Your task to perform on an android device: Open Amazon Image 0: 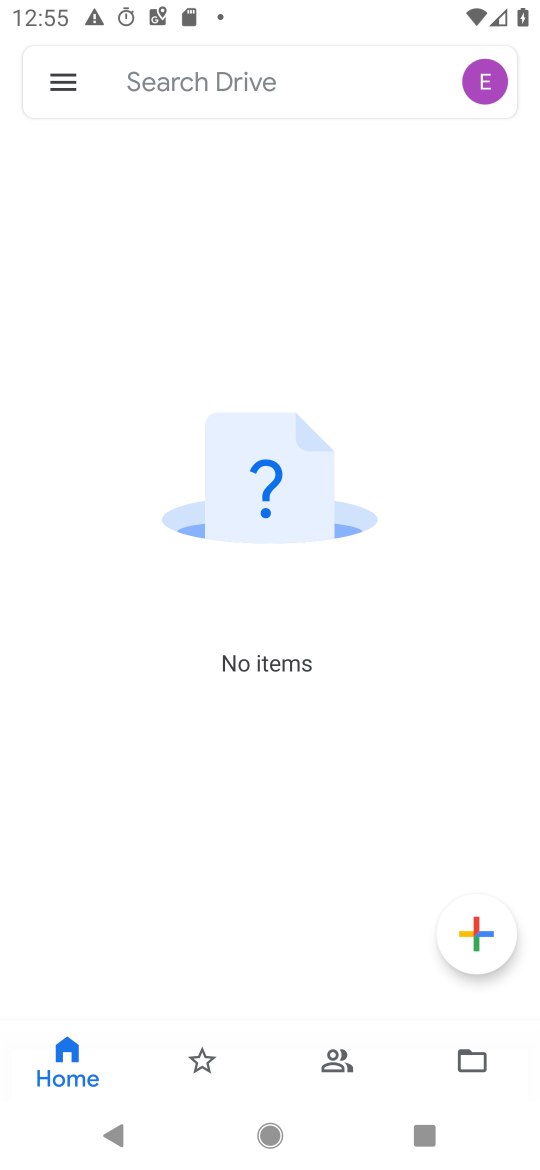
Step 0: press home button
Your task to perform on an android device: Open Amazon Image 1: 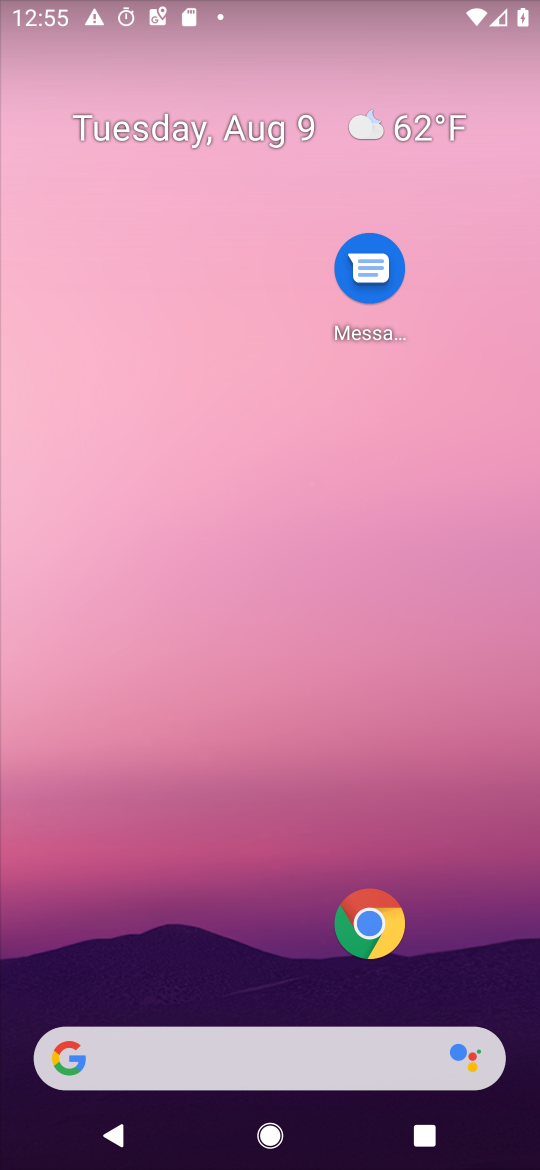
Step 1: click (135, 1058)
Your task to perform on an android device: Open Amazon Image 2: 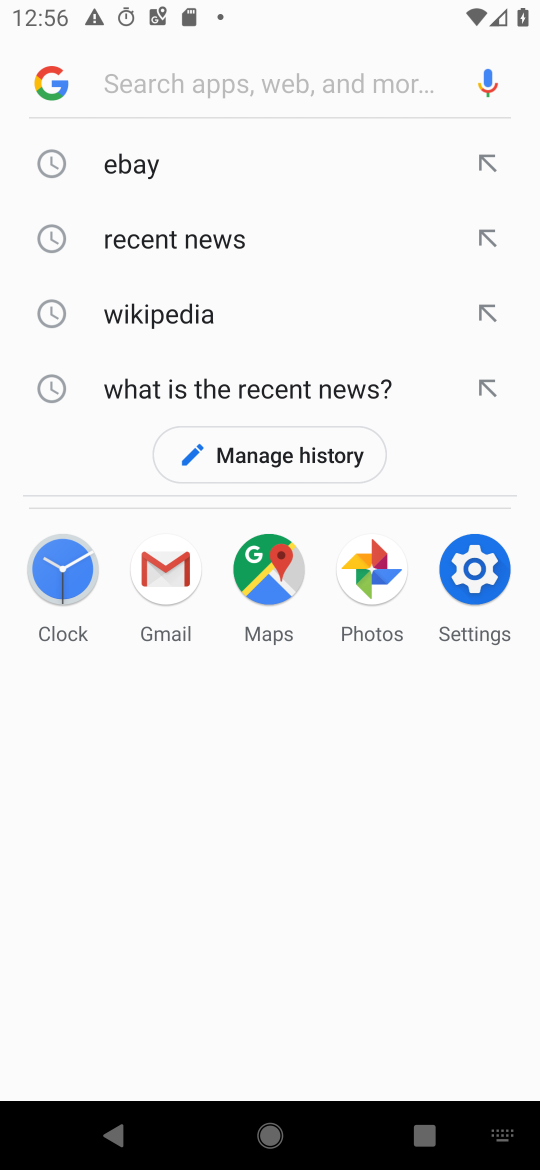
Step 2: type "Amazon"
Your task to perform on an android device: Open Amazon Image 3: 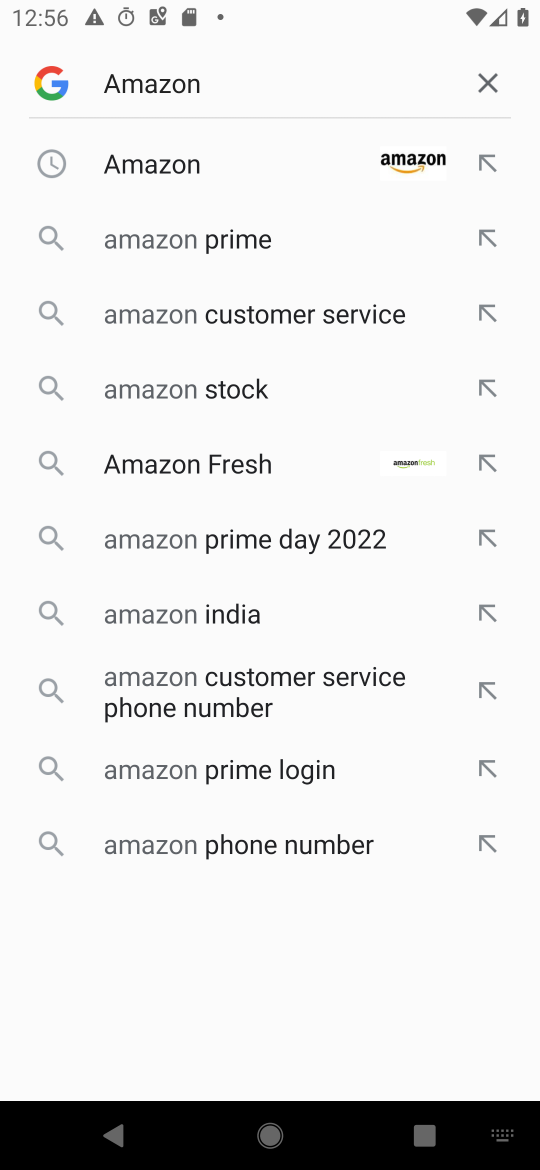
Step 3: click (151, 155)
Your task to perform on an android device: Open Amazon Image 4: 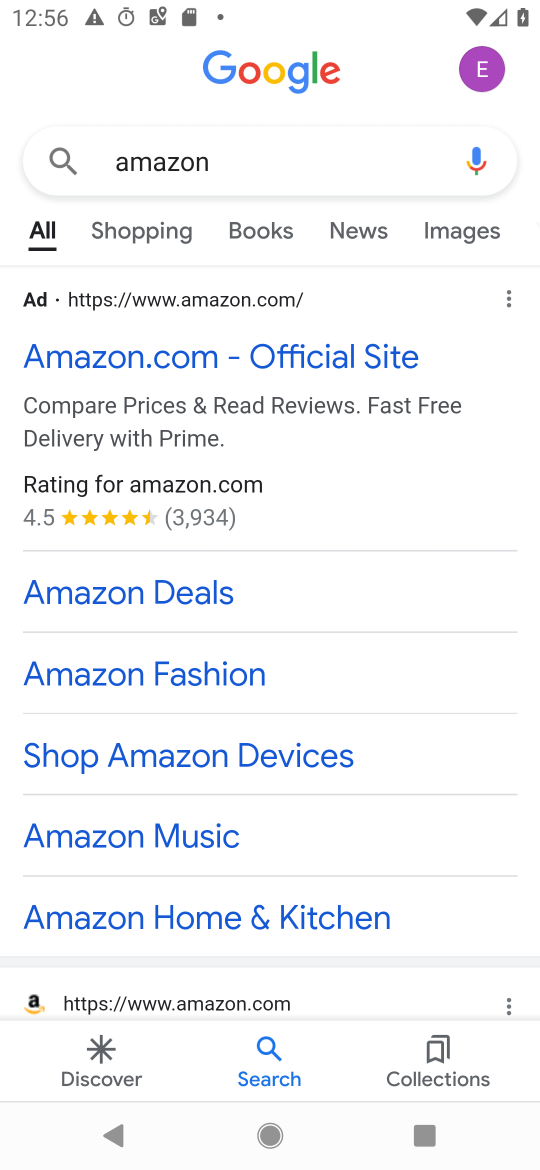
Step 4: task complete